Your task to perform on an android device: Show me productivity apps on the Play Store Image 0: 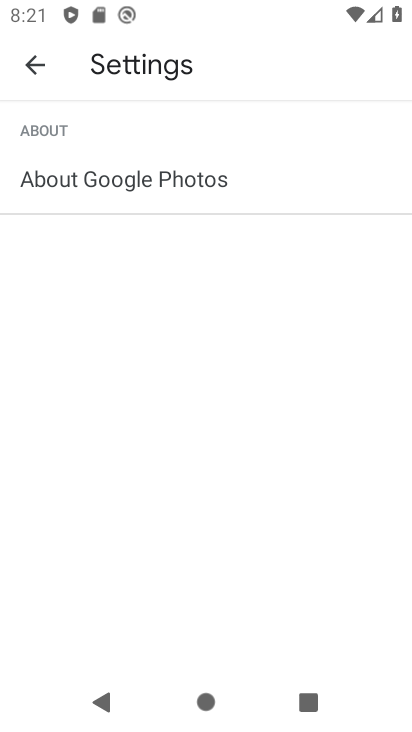
Step 0: press home button
Your task to perform on an android device: Show me productivity apps on the Play Store Image 1: 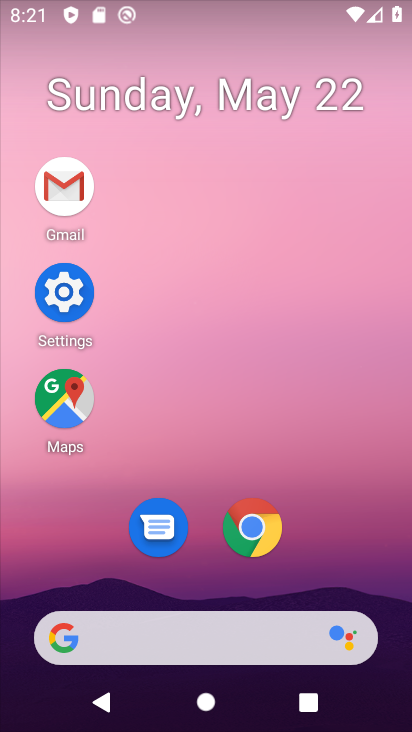
Step 1: drag from (253, 370) to (220, 150)
Your task to perform on an android device: Show me productivity apps on the Play Store Image 2: 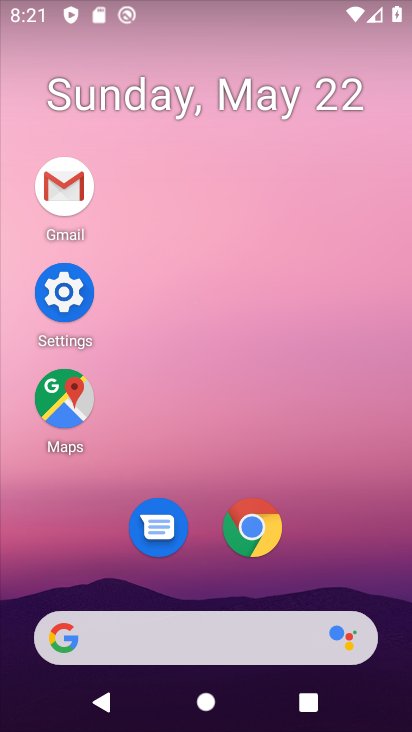
Step 2: drag from (291, 573) to (290, 144)
Your task to perform on an android device: Show me productivity apps on the Play Store Image 3: 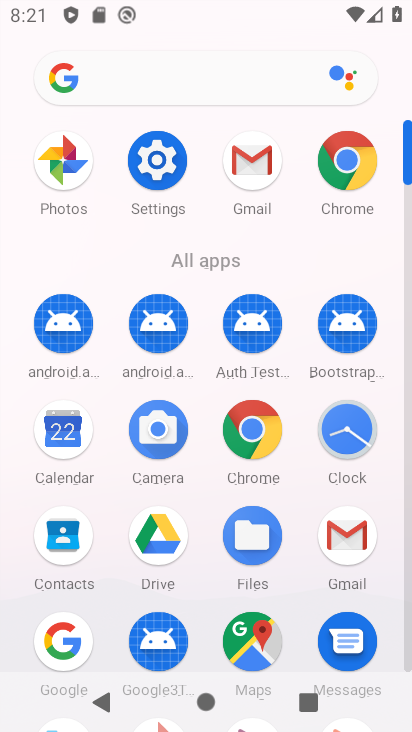
Step 3: drag from (213, 485) to (233, 106)
Your task to perform on an android device: Show me productivity apps on the Play Store Image 4: 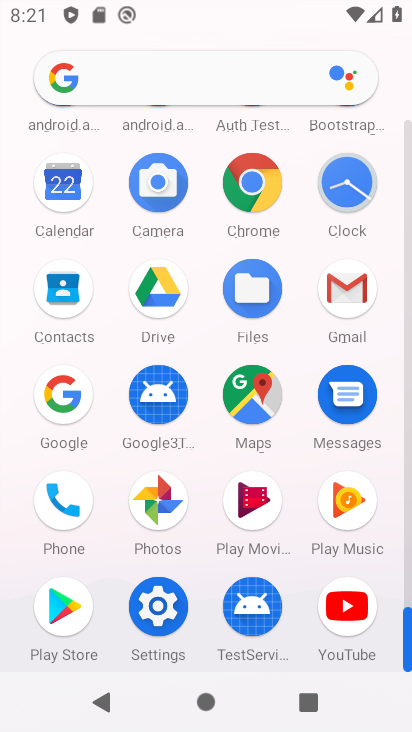
Step 4: click (58, 624)
Your task to perform on an android device: Show me productivity apps on the Play Store Image 5: 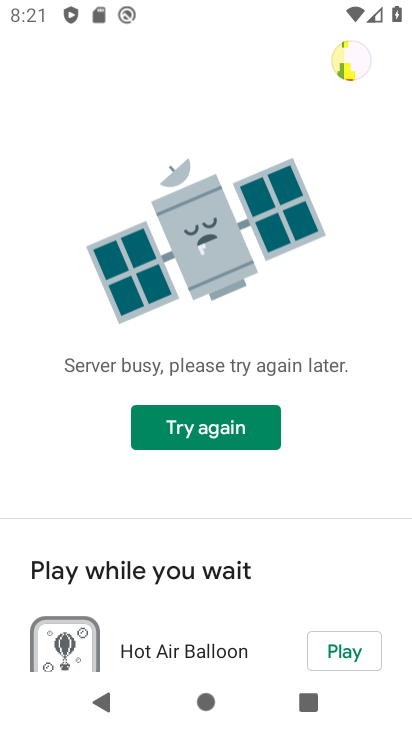
Step 5: click (215, 462)
Your task to perform on an android device: Show me productivity apps on the Play Store Image 6: 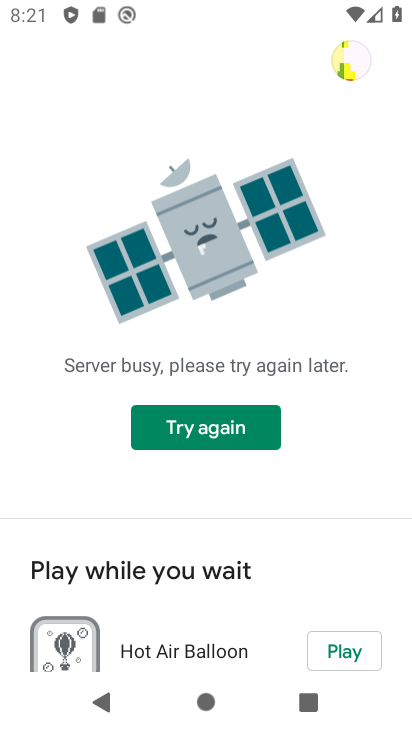
Step 6: click (210, 401)
Your task to perform on an android device: Show me productivity apps on the Play Store Image 7: 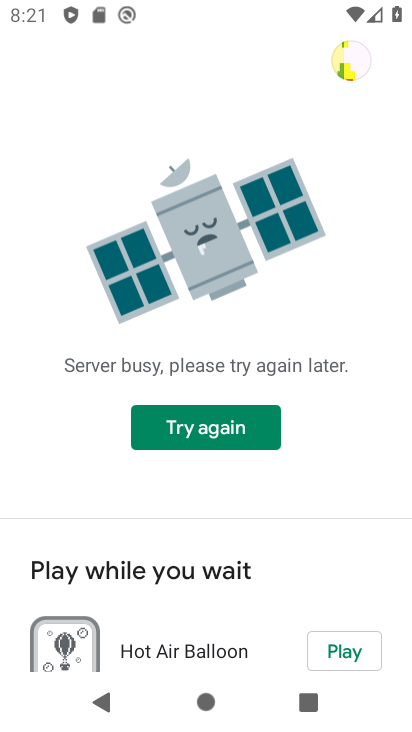
Step 7: click (222, 431)
Your task to perform on an android device: Show me productivity apps on the Play Store Image 8: 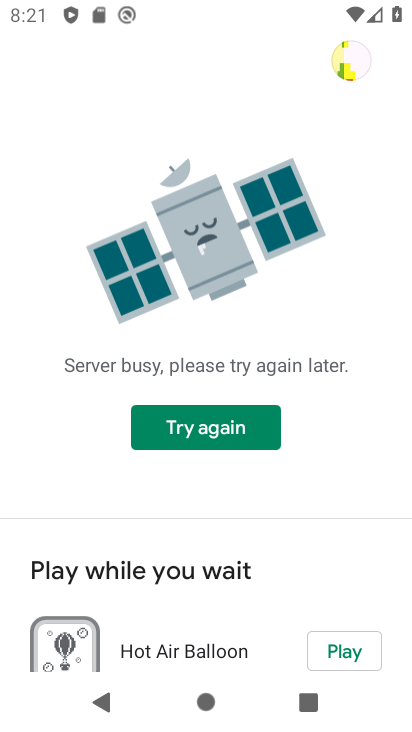
Step 8: task complete